Your task to perform on an android device: snooze an email in the gmail app Image 0: 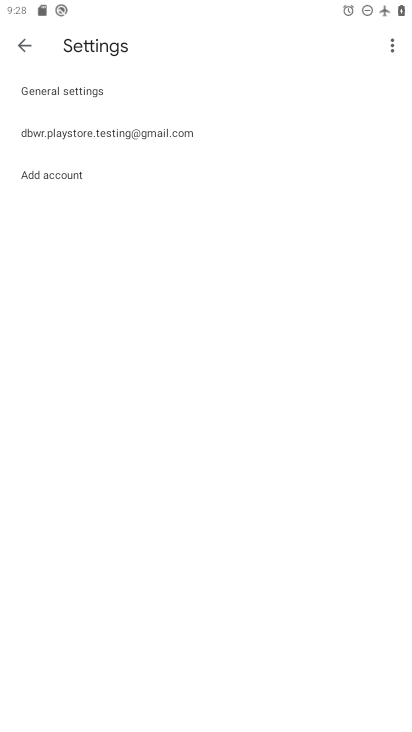
Step 0: press home button
Your task to perform on an android device: snooze an email in the gmail app Image 1: 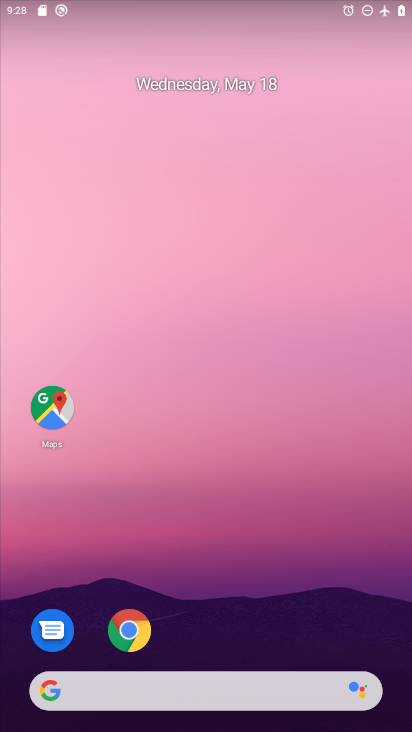
Step 1: drag from (209, 659) to (196, 30)
Your task to perform on an android device: snooze an email in the gmail app Image 2: 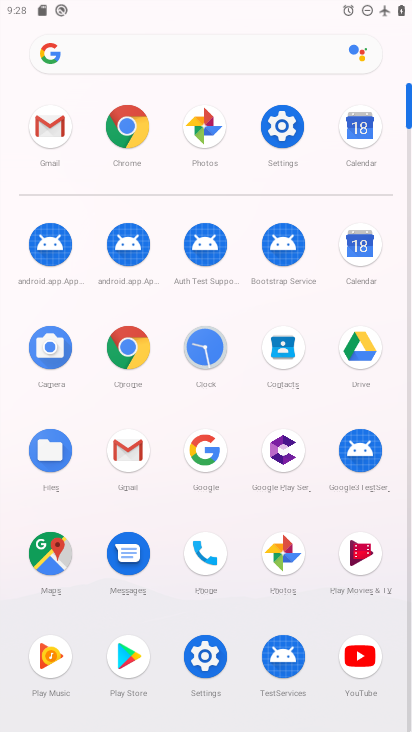
Step 2: click (139, 446)
Your task to perform on an android device: snooze an email in the gmail app Image 3: 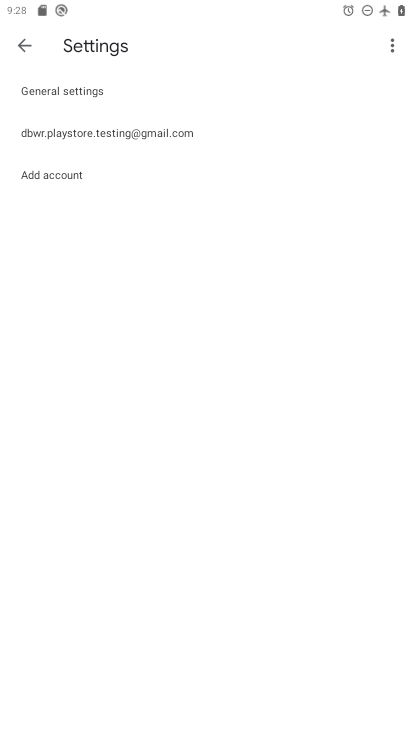
Step 3: click (27, 49)
Your task to perform on an android device: snooze an email in the gmail app Image 4: 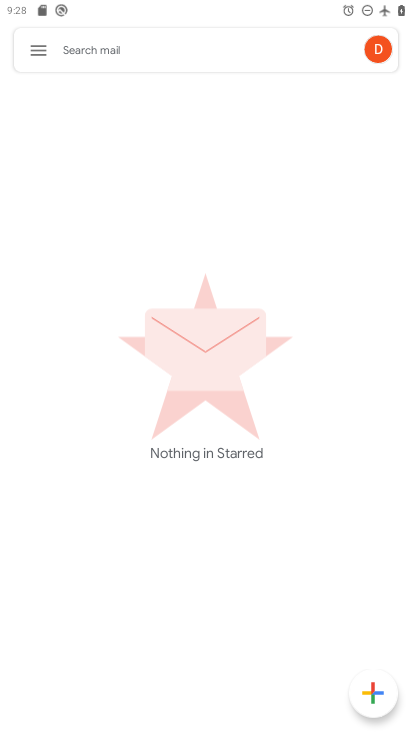
Step 4: click (28, 50)
Your task to perform on an android device: snooze an email in the gmail app Image 5: 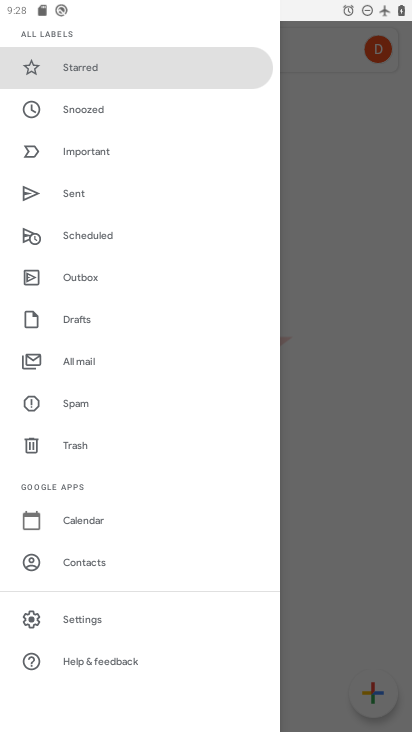
Step 5: click (93, 354)
Your task to perform on an android device: snooze an email in the gmail app Image 6: 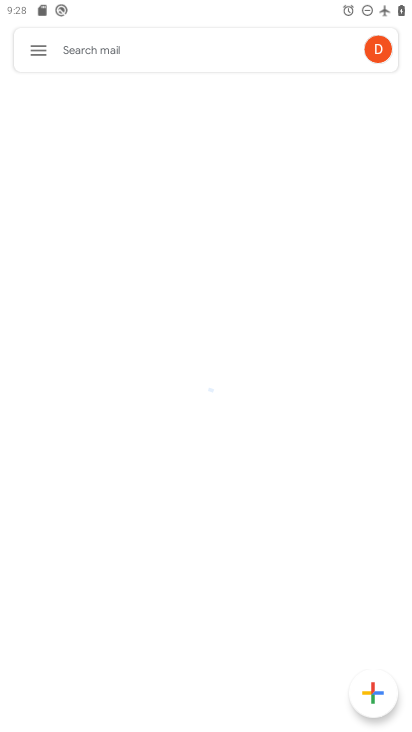
Step 6: task complete